Your task to perform on an android device: Open the Play Movies app and select the watchlist tab. Image 0: 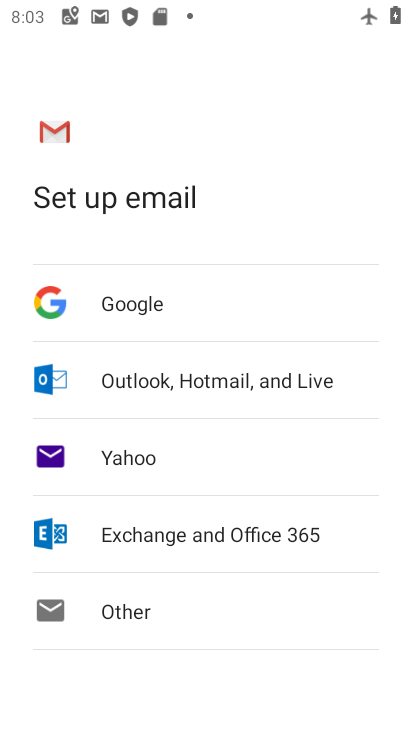
Step 0: press home button
Your task to perform on an android device: Open the Play Movies app and select the watchlist tab. Image 1: 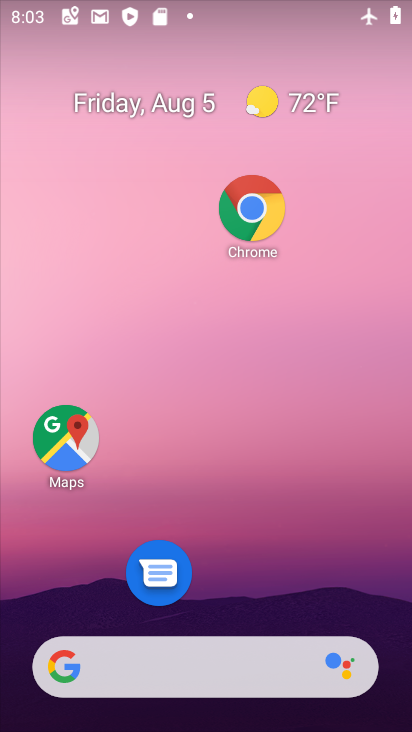
Step 1: drag from (350, 590) to (84, 15)
Your task to perform on an android device: Open the Play Movies app and select the watchlist tab. Image 2: 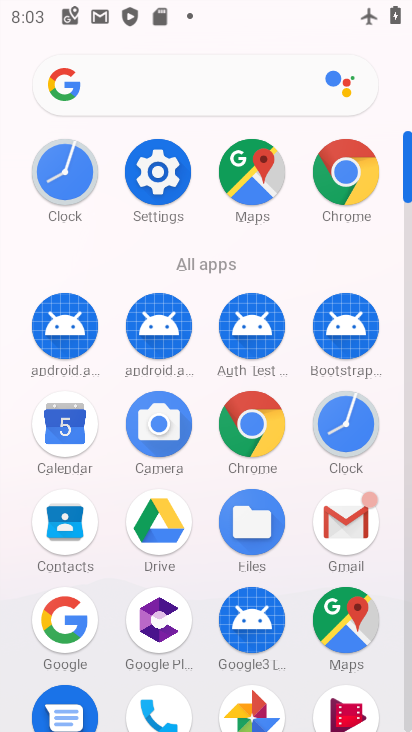
Step 2: drag from (367, 646) to (262, 177)
Your task to perform on an android device: Open the Play Movies app and select the watchlist tab. Image 3: 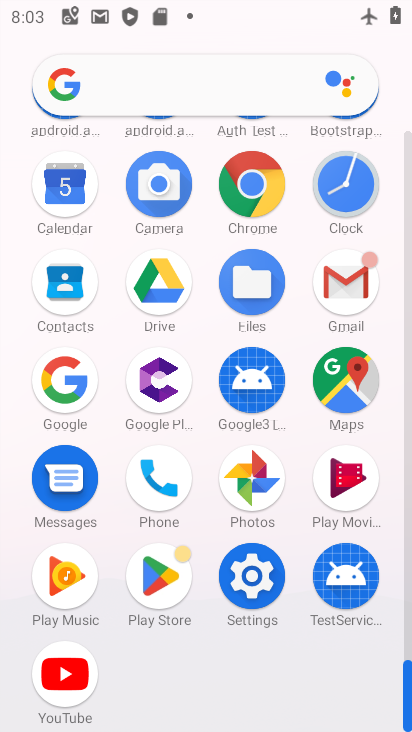
Step 3: click (332, 487)
Your task to perform on an android device: Open the Play Movies app and select the watchlist tab. Image 4: 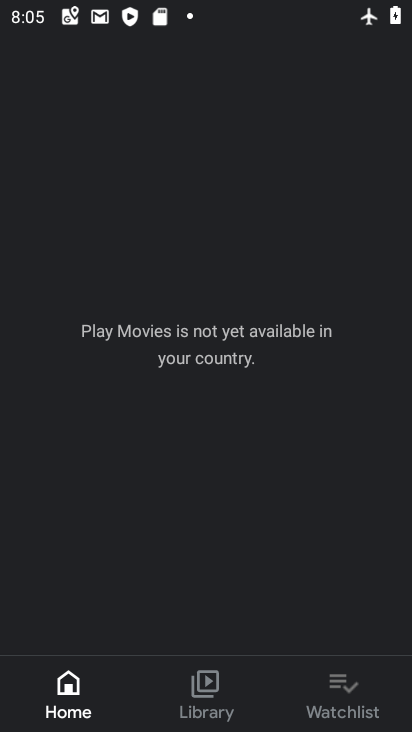
Step 4: click (333, 696)
Your task to perform on an android device: Open the Play Movies app and select the watchlist tab. Image 5: 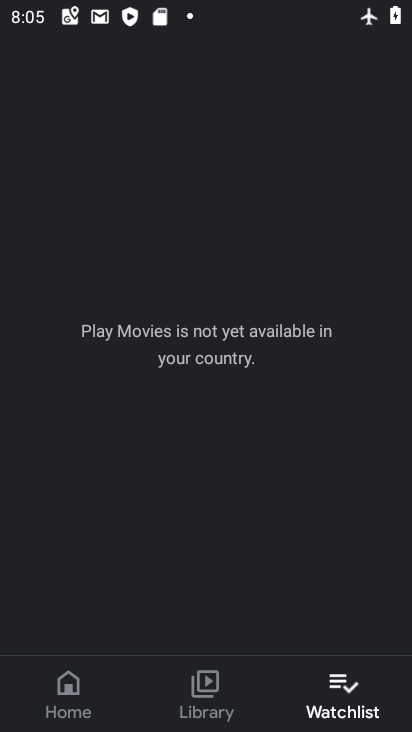
Step 5: task complete